Your task to perform on an android device: Open location settings Image 0: 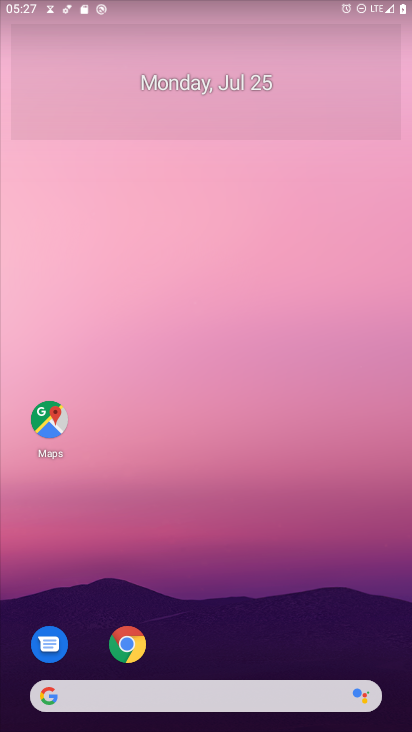
Step 0: press home button
Your task to perform on an android device: Open location settings Image 1: 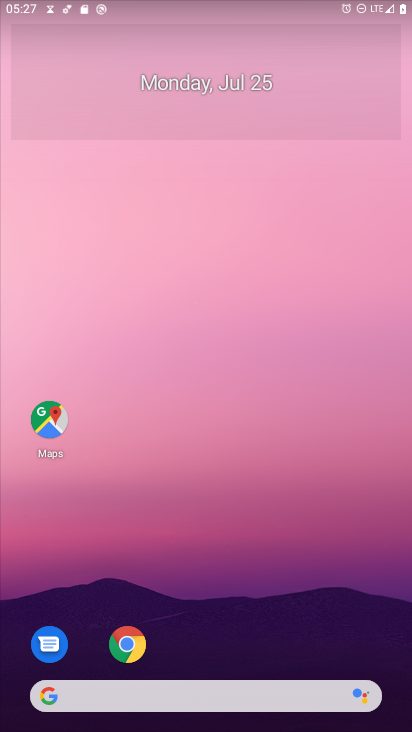
Step 1: drag from (267, 627) to (260, 89)
Your task to perform on an android device: Open location settings Image 2: 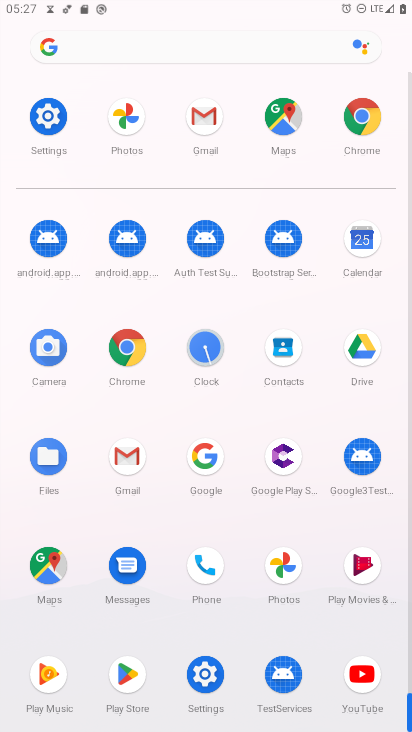
Step 2: click (51, 117)
Your task to perform on an android device: Open location settings Image 3: 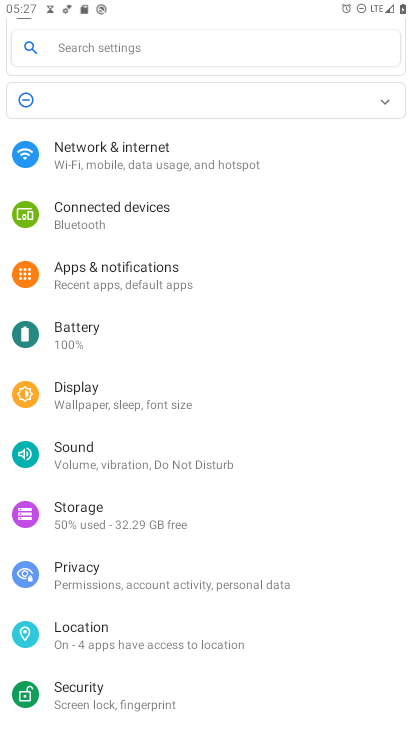
Step 3: click (66, 629)
Your task to perform on an android device: Open location settings Image 4: 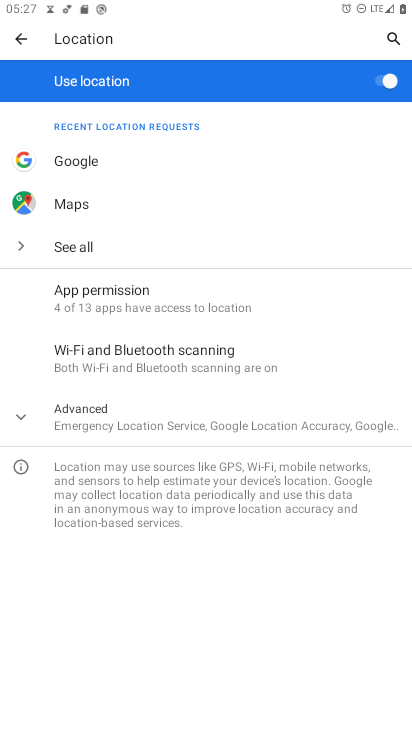
Step 4: task complete